Your task to perform on an android device: turn pop-ups on in chrome Image 0: 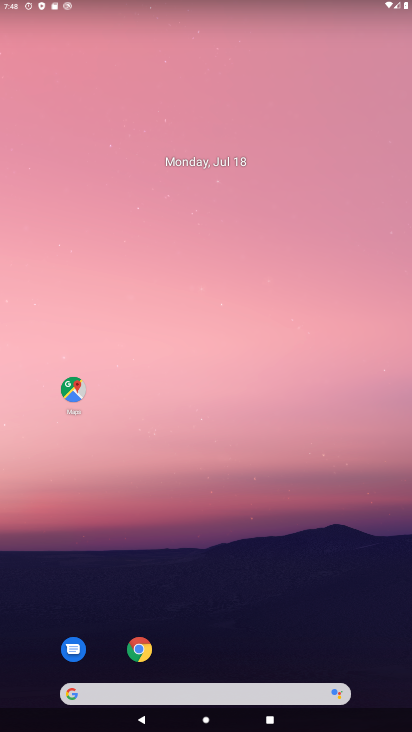
Step 0: drag from (240, 664) to (204, 98)
Your task to perform on an android device: turn pop-ups on in chrome Image 1: 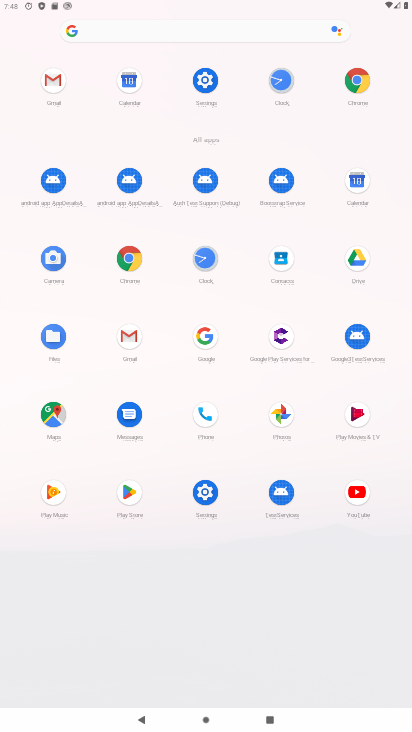
Step 1: click (123, 254)
Your task to perform on an android device: turn pop-ups on in chrome Image 2: 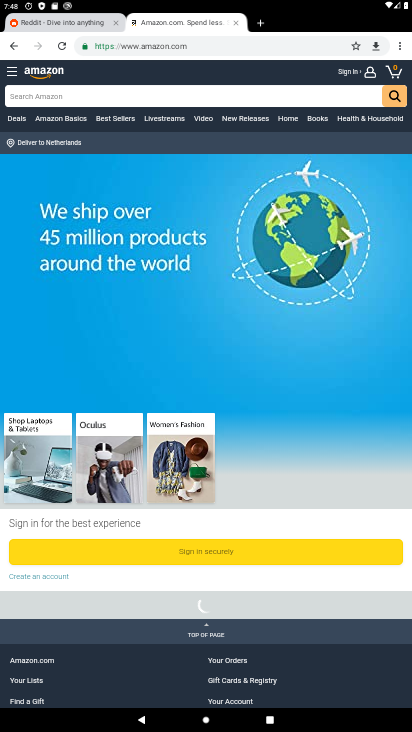
Step 2: drag from (403, 37) to (340, 332)
Your task to perform on an android device: turn pop-ups on in chrome Image 3: 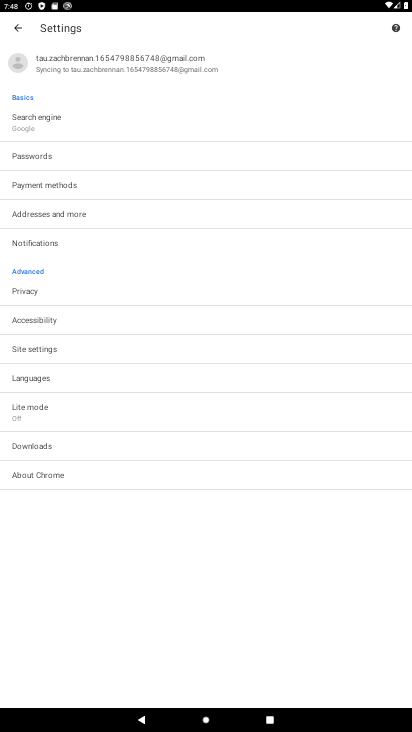
Step 3: click (21, 356)
Your task to perform on an android device: turn pop-ups on in chrome Image 4: 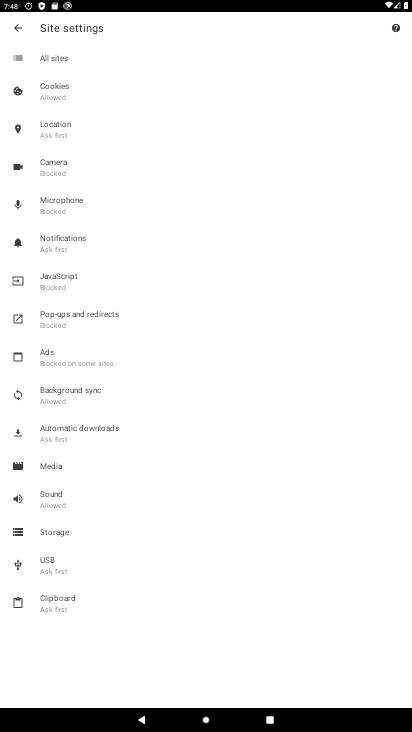
Step 4: click (54, 325)
Your task to perform on an android device: turn pop-ups on in chrome Image 5: 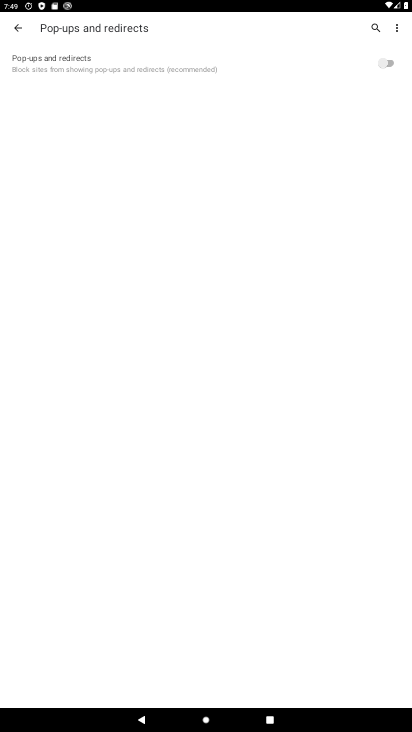
Step 5: click (388, 58)
Your task to perform on an android device: turn pop-ups on in chrome Image 6: 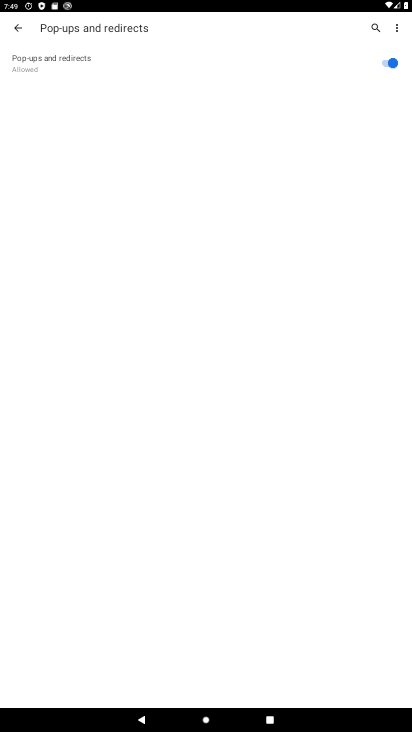
Step 6: task complete